Your task to perform on an android device: Open Chrome and go to the settings page Image 0: 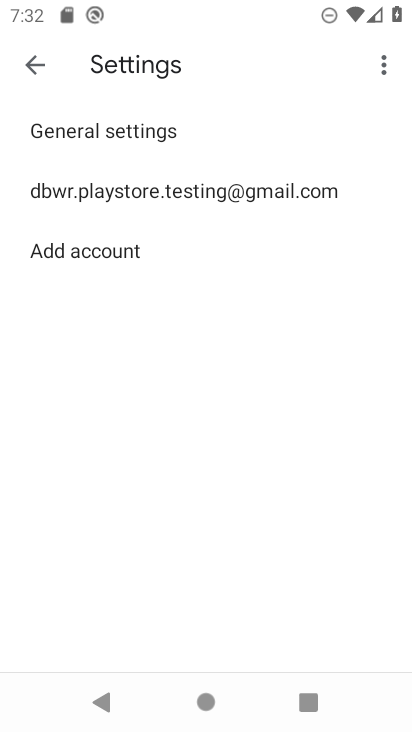
Step 0: press home button
Your task to perform on an android device: Open Chrome and go to the settings page Image 1: 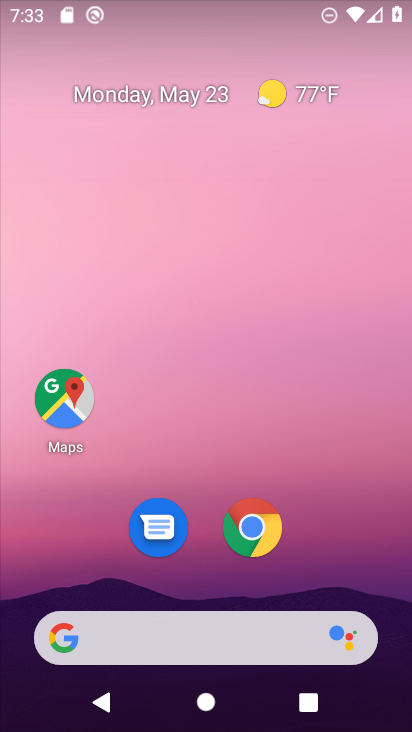
Step 1: drag from (272, 613) to (263, 179)
Your task to perform on an android device: Open Chrome and go to the settings page Image 2: 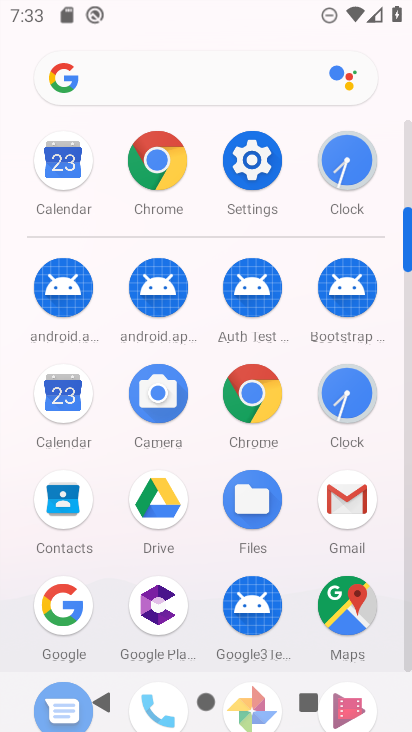
Step 2: click (162, 163)
Your task to perform on an android device: Open Chrome and go to the settings page Image 3: 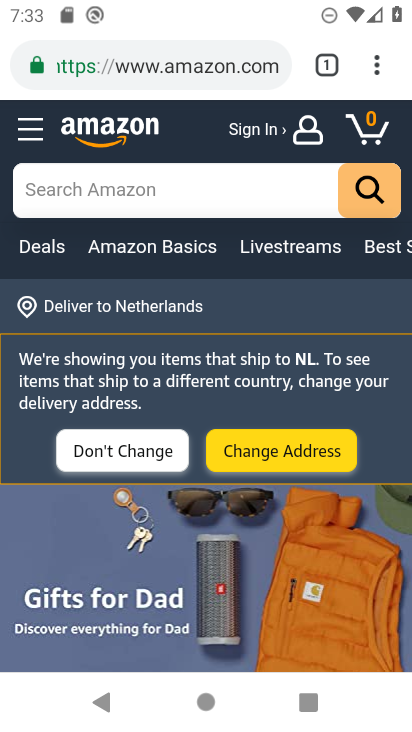
Step 3: click (364, 86)
Your task to perform on an android device: Open Chrome and go to the settings page Image 4: 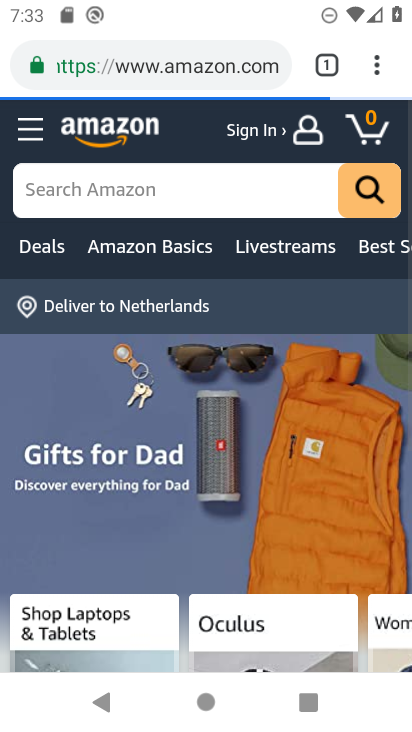
Step 4: click (372, 75)
Your task to perform on an android device: Open Chrome and go to the settings page Image 5: 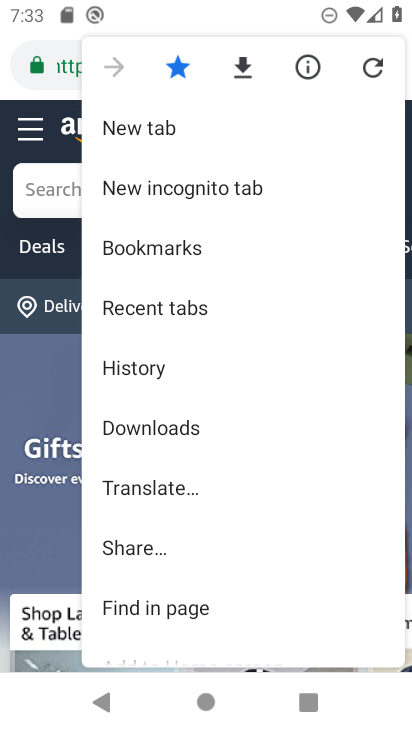
Step 5: drag from (181, 554) to (195, 271)
Your task to perform on an android device: Open Chrome and go to the settings page Image 6: 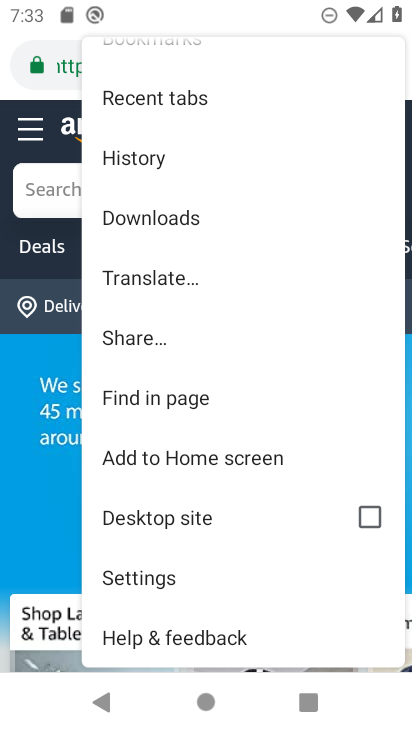
Step 6: click (158, 576)
Your task to perform on an android device: Open Chrome and go to the settings page Image 7: 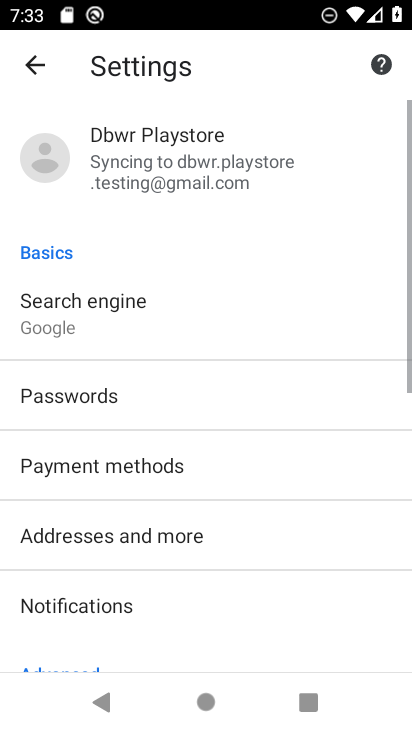
Step 7: task complete